Your task to perform on an android device: Go to location settings Image 0: 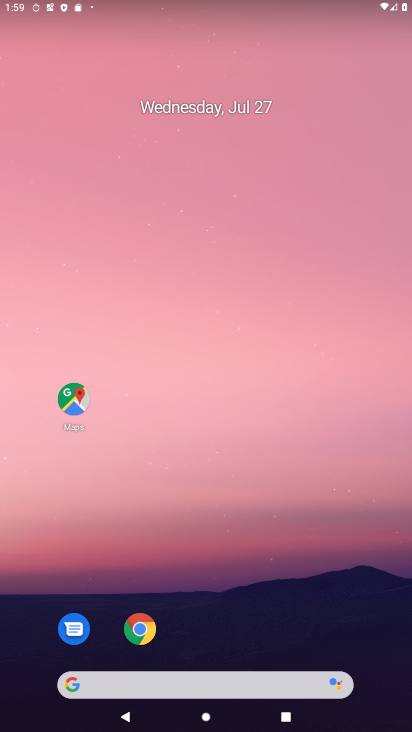
Step 0: drag from (370, 653) to (214, 54)
Your task to perform on an android device: Go to location settings Image 1: 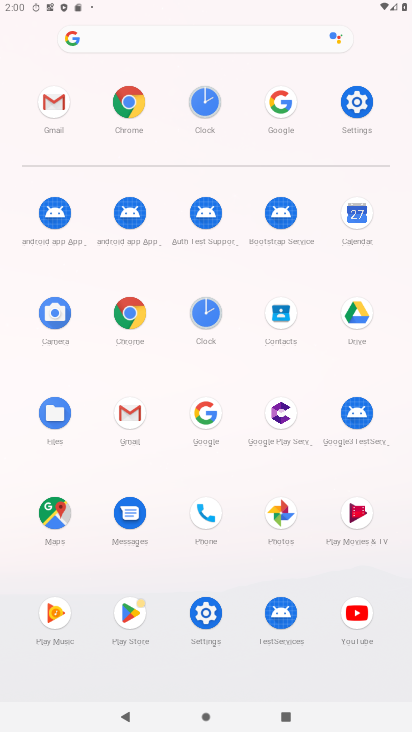
Step 1: click (206, 610)
Your task to perform on an android device: Go to location settings Image 2: 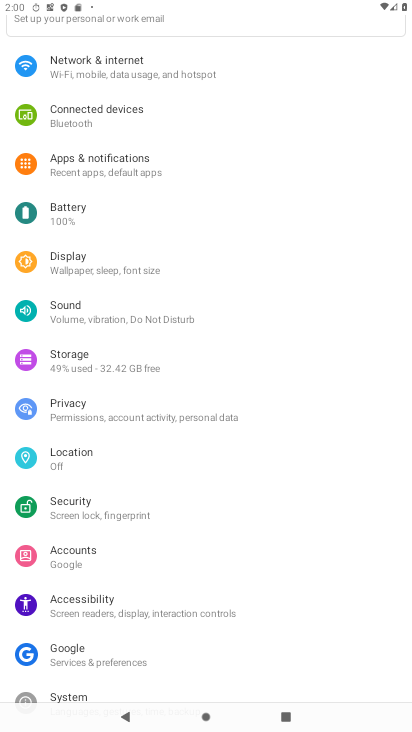
Step 2: click (64, 458)
Your task to perform on an android device: Go to location settings Image 3: 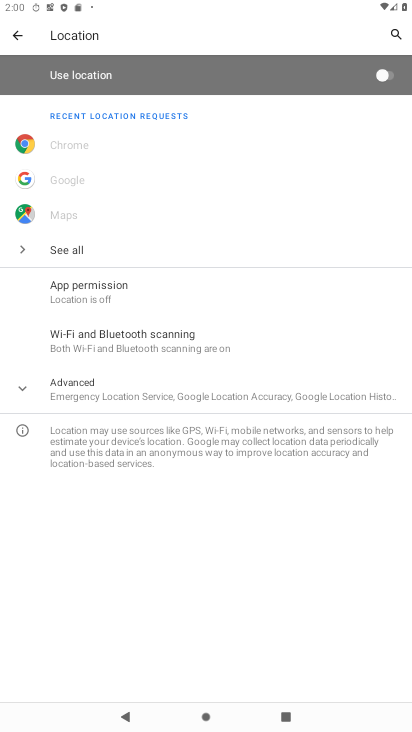
Step 3: task complete